Your task to perform on an android device: turn on improve location accuracy Image 0: 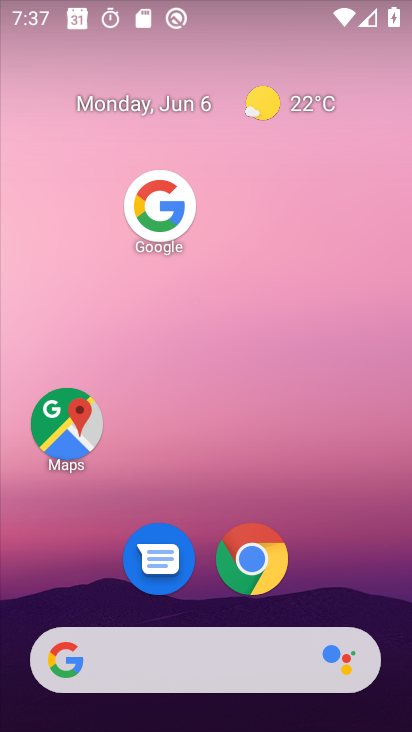
Step 0: drag from (208, 599) to (206, 153)
Your task to perform on an android device: turn on improve location accuracy Image 1: 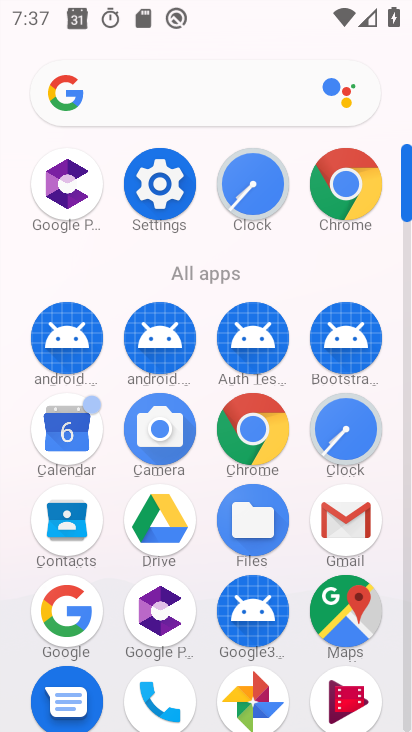
Step 1: click (162, 182)
Your task to perform on an android device: turn on improve location accuracy Image 2: 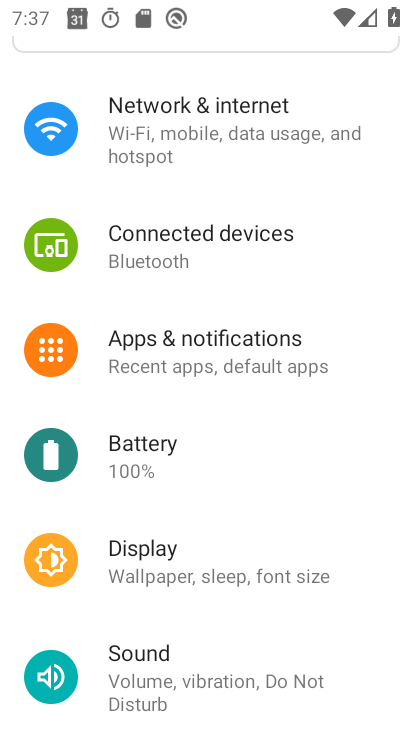
Step 2: drag from (199, 626) to (226, 199)
Your task to perform on an android device: turn on improve location accuracy Image 3: 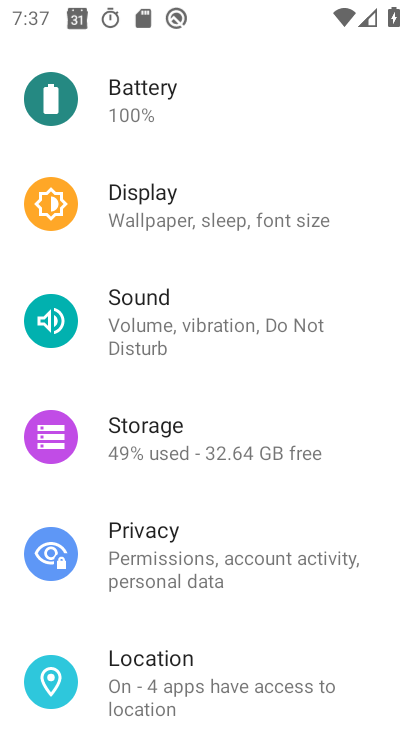
Step 3: click (166, 675)
Your task to perform on an android device: turn on improve location accuracy Image 4: 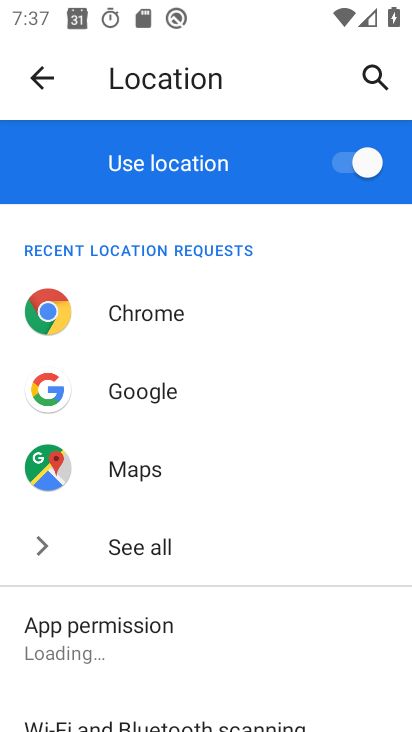
Step 4: drag from (159, 668) to (204, 109)
Your task to perform on an android device: turn on improve location accuracy Image 5: 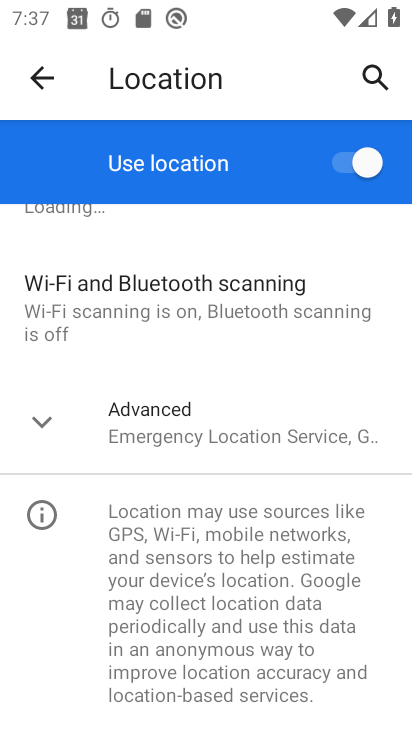
Step 5: click (45, 424)
Your task to perform on an android device: turn on improve location accuracy Image 6: 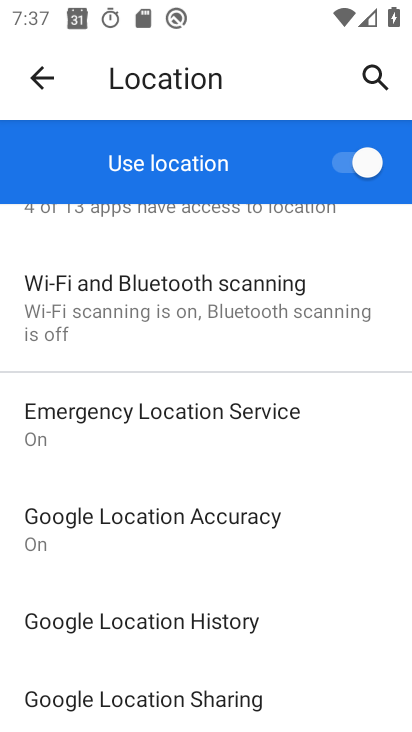
Step 6: task complete